Your task to perform on an android device: What's the weather going to be this weekend? Image 0: 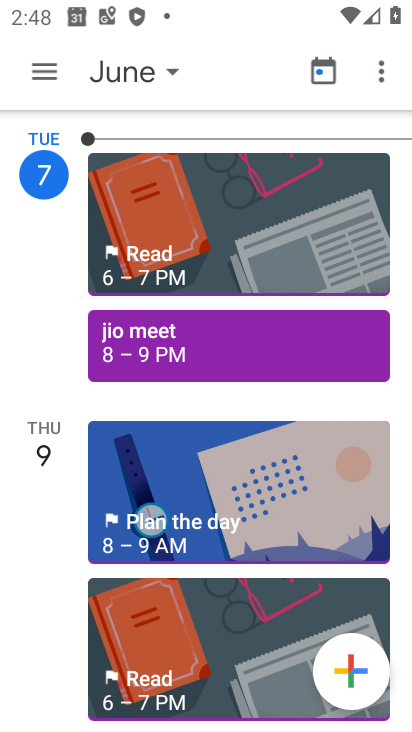
Step 0: press home button
Your task to perform on an android device: What's the weather going to be this weekend? Image 1: 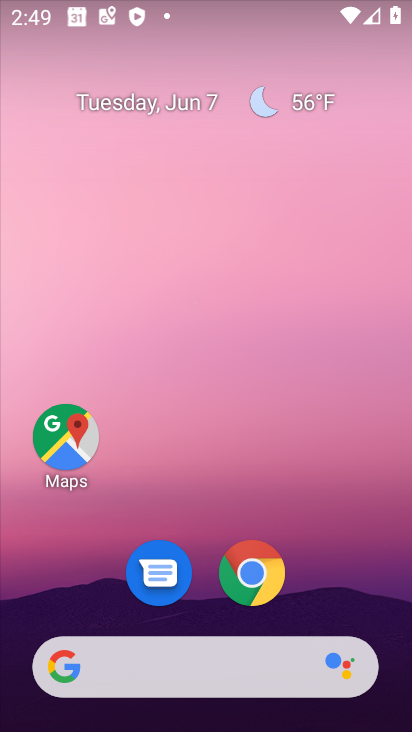
Step 1: drag from (323, 622) to (334, 25)
Your task to perform on an android device: What's the weather going to be this weekend? Image 2: 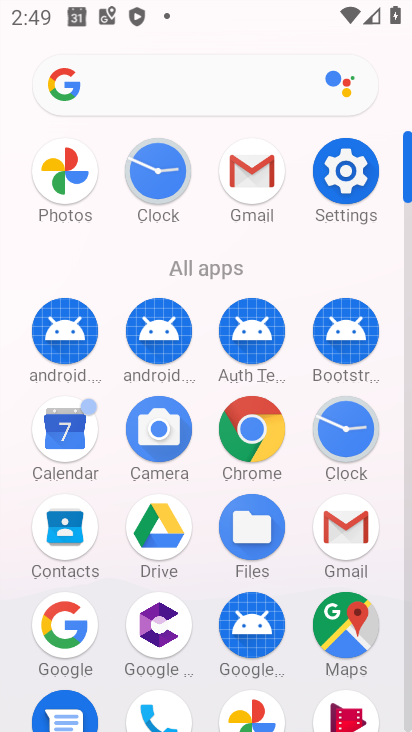
Step 2: click (147, 81)
Your task to perform on an android device: What's the weather going to be this weekend? Image 3: 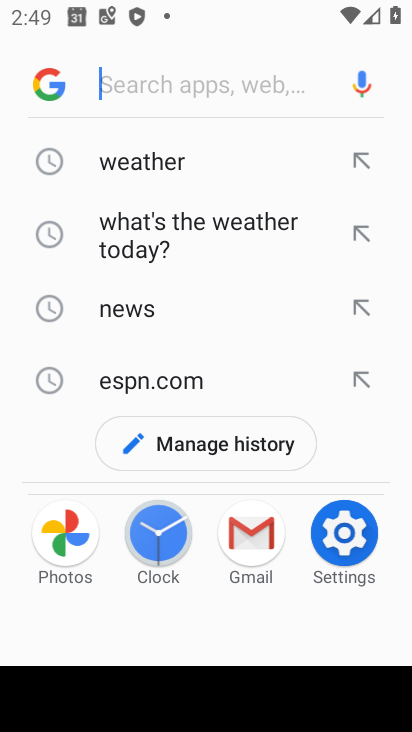
Step 3: type "what's the weather going to be this wekend"
Your task to perform on an android device: What's the weather going to be this weekend? Image 4: 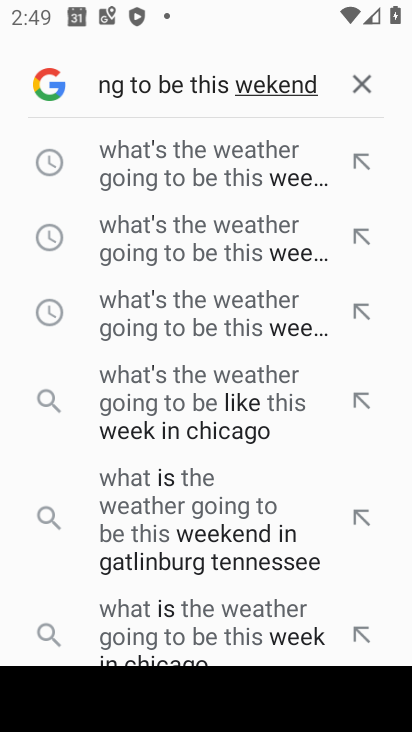
Step 4: drag from (225, 474) to (221, 149)
Your task to perform on an android device: What's the weather going to be this weekend? Image 5: 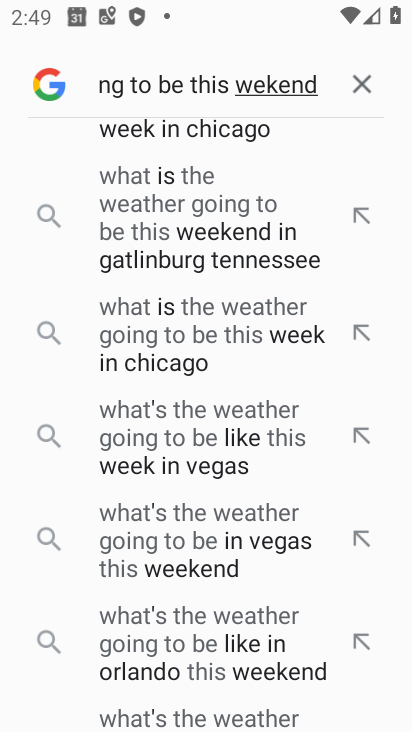
Step 5: drag from (223, 254) to (262, 722)
Your task to perform on an android device: What's the weather going to be this weekend? Image 6: 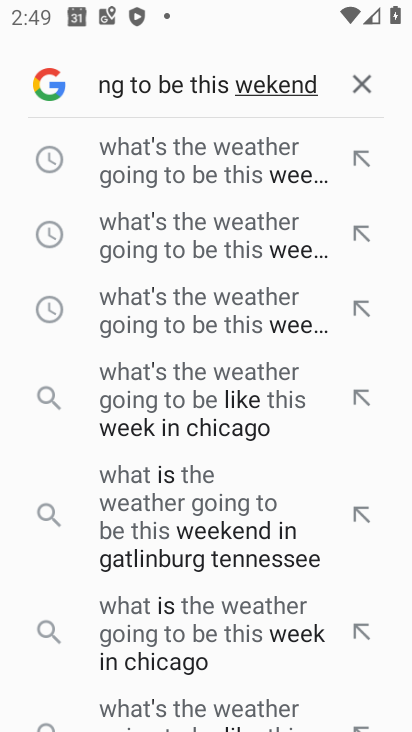
Step 6: click (215, 173)
Your task to perform on an android device: What's the weather going to be this weekend? Image 7: 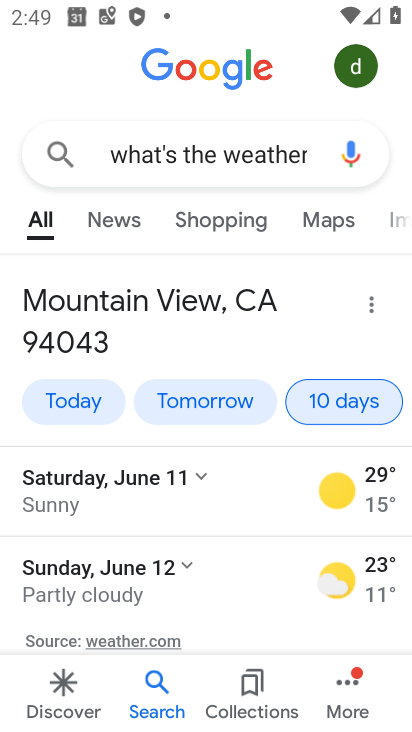
Step 7: task complete